Your task to perform on an android device: Open Google Image 0: 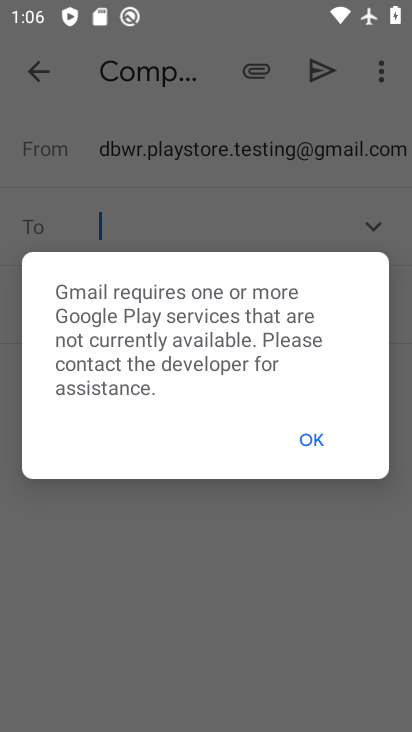
Step 0: press home button
Your task to perform on an android device: Open Google Image 1: 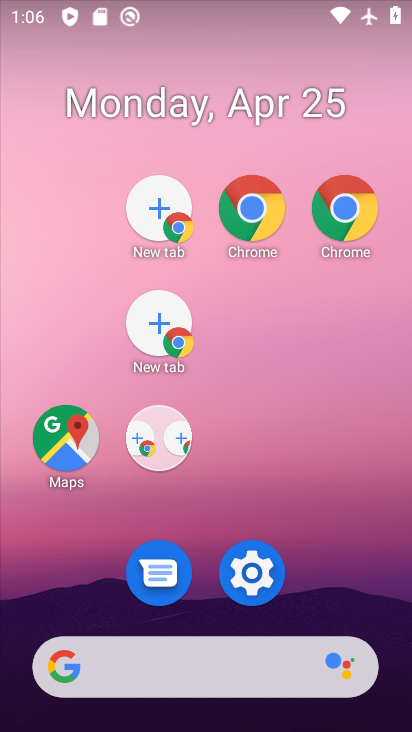
Step 1: drag from (269, 328) to (239, 145)
Your task to perform on an android device: Open Google Image 2: 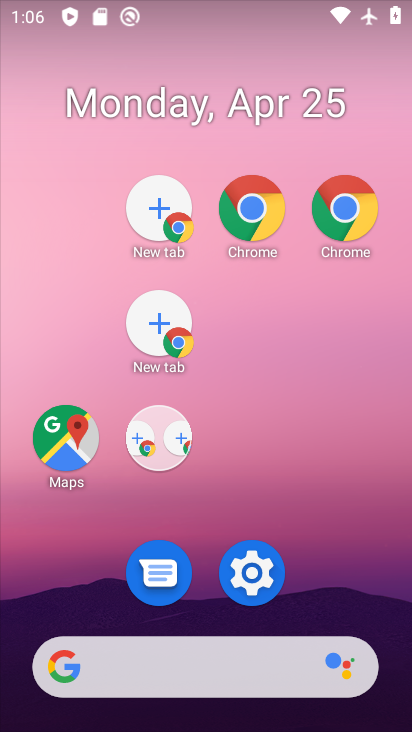
Step 2: drag from (275, 606) to (176, 49)
Your task to perform on an android device: Open Google Image 3: 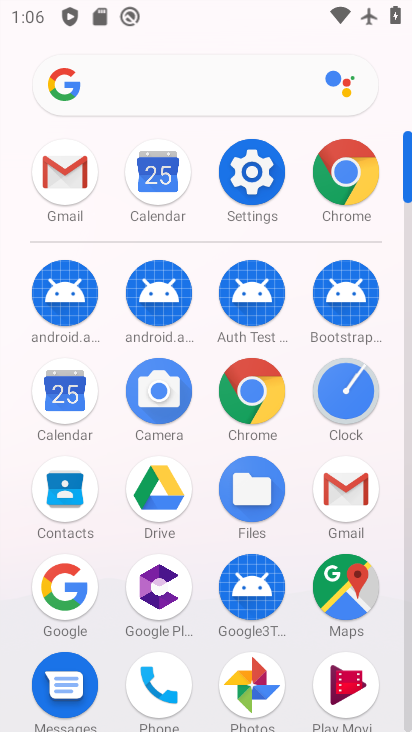
Step 3: click (71, 584)
Your task to perform on an android device: Open Google Image 4: 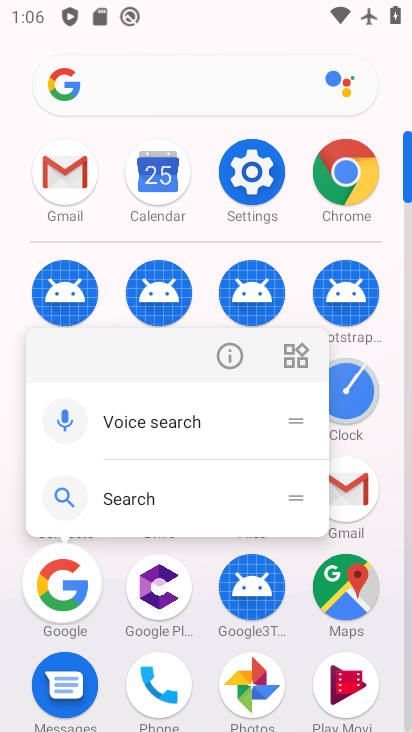
Step 4: click (68, 577)
Your task to perform on an android device: Open Google Image 5: 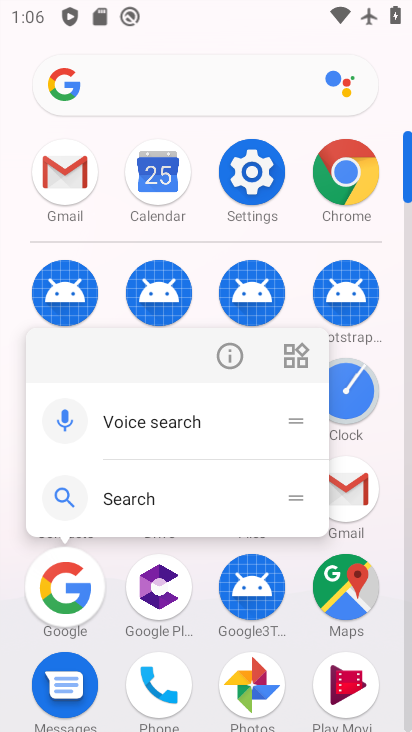
Step 5: click (68, 577)
Your task to perform on an android device: Open Google Image 6: 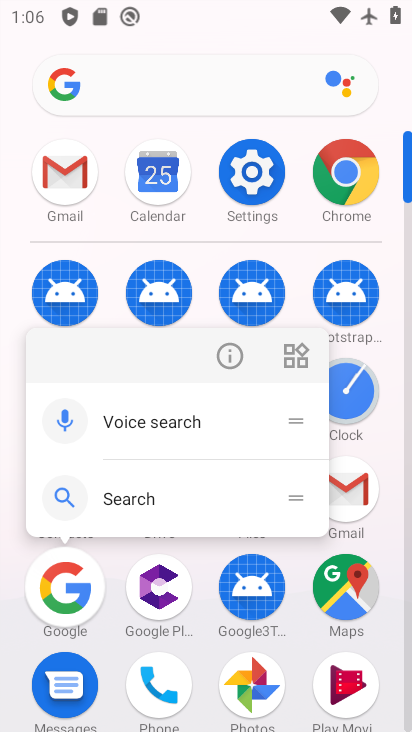
Step 6: click (67, 576)
Your task to perform on an android device: Open Google Image 7: 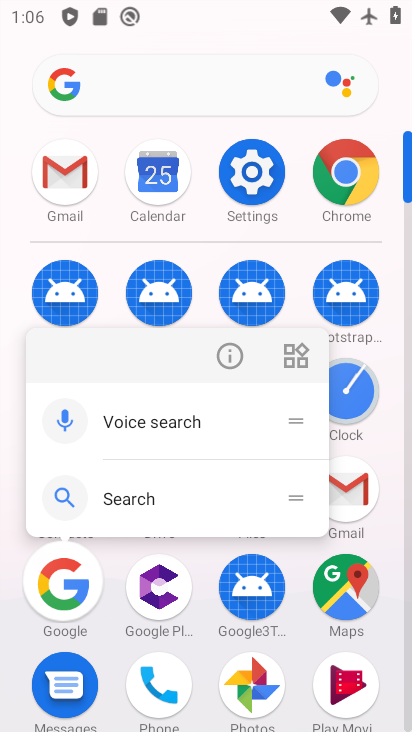
Step 7: click (65, 565)
Your task to perform on an android device: Open Google Image 8: 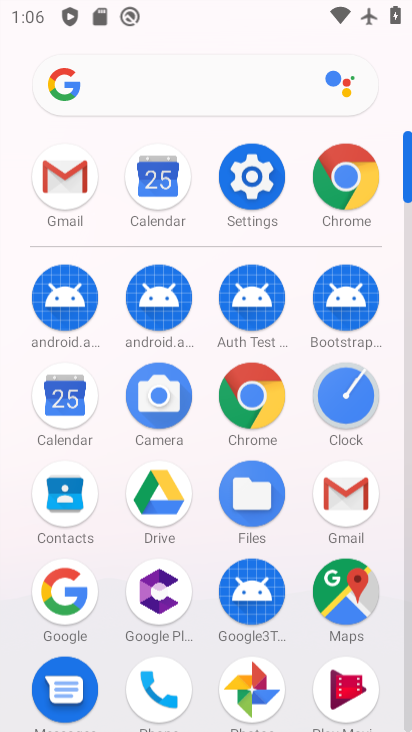
Step 8: click (51, 594)
Your task to perform on an android device: Open Google Image 9: 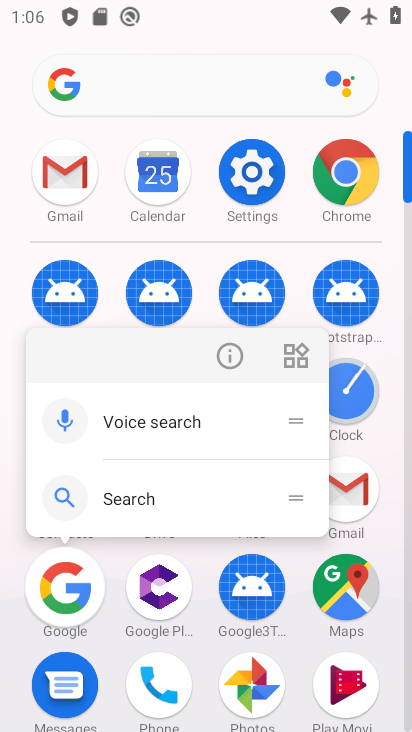
Step 9: click (57, 587)
Your task to perform on an android device: Open Google Image 10: 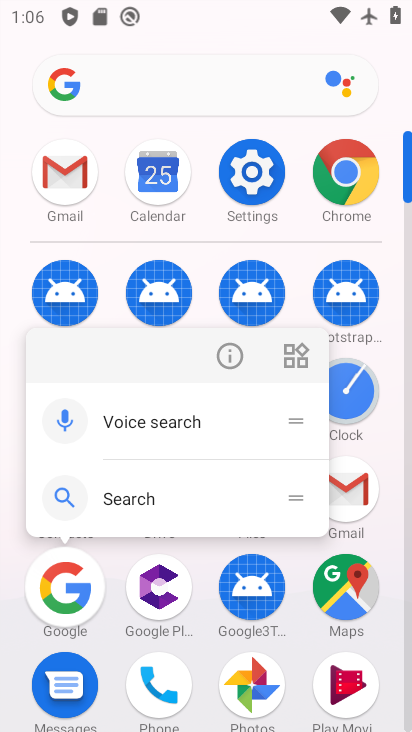
Step 10: click (61, 586)
Your task to perform on an android device: Open Google Image 11: 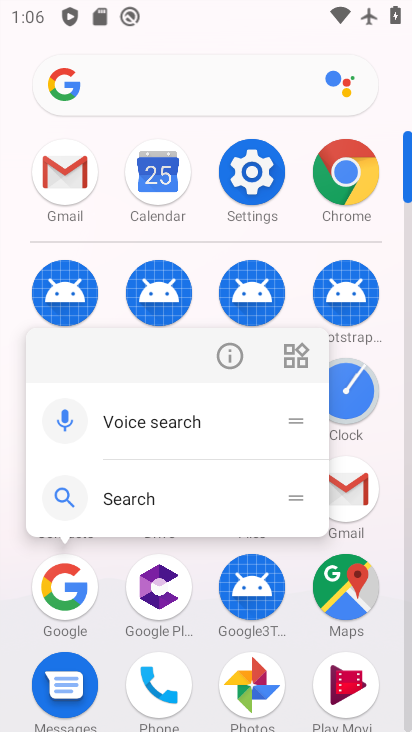
Step 11: click (70, 580)
Your task to perform on an android device: Open Google Image 12: 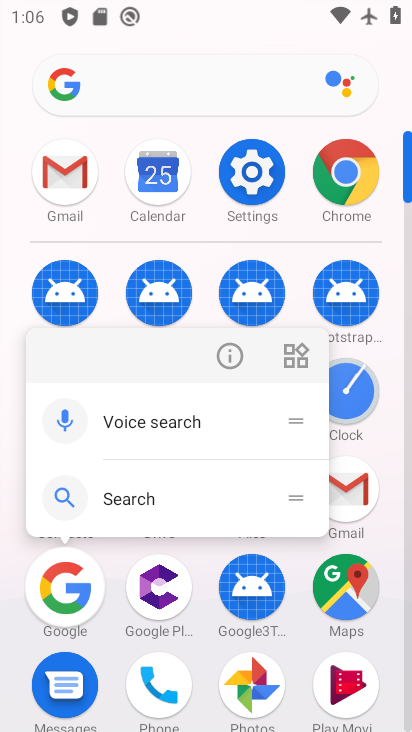
Step 12: click (72, 579)
Your task to perform on an android device: Open Google Image 13: 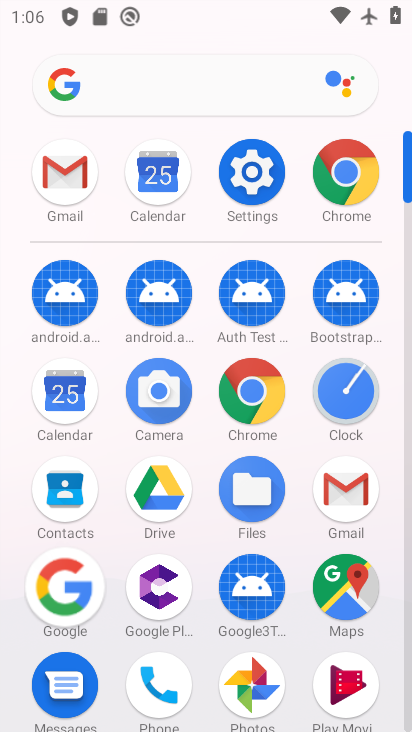
Step 13: click (74, 579)
Your task to perform on an android device: Open Google Image 14: 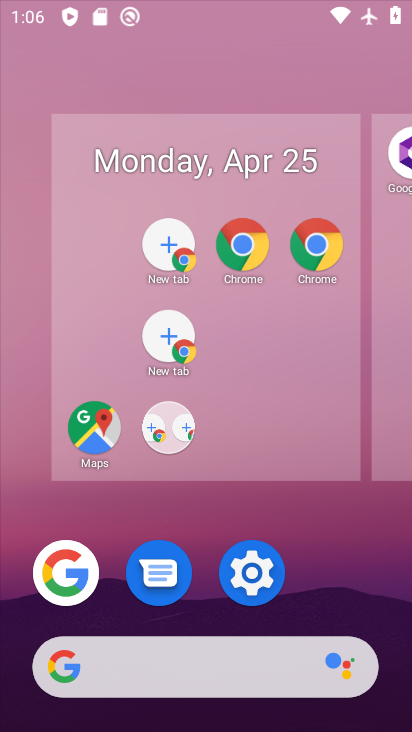
Step 14: click (121, 495)
Your task to perform on an android device: Open Google Image 15: 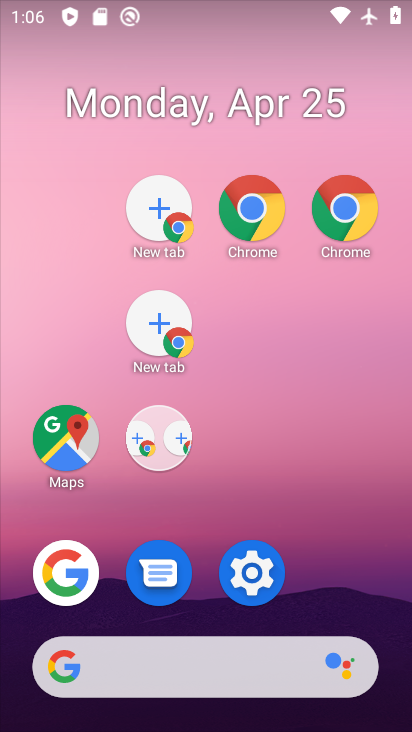
Step 15: click (51, 561)
Your task to perform on an android device: Open Google Image 16: 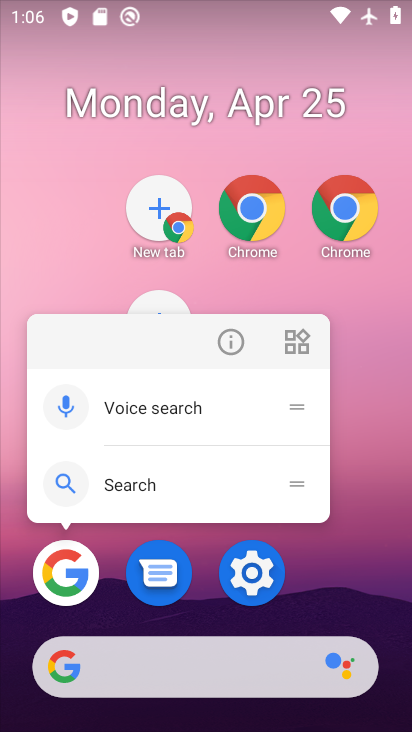
Step 16: click (106, 476)
Your task to perform on an android device: Open Google Image 17: 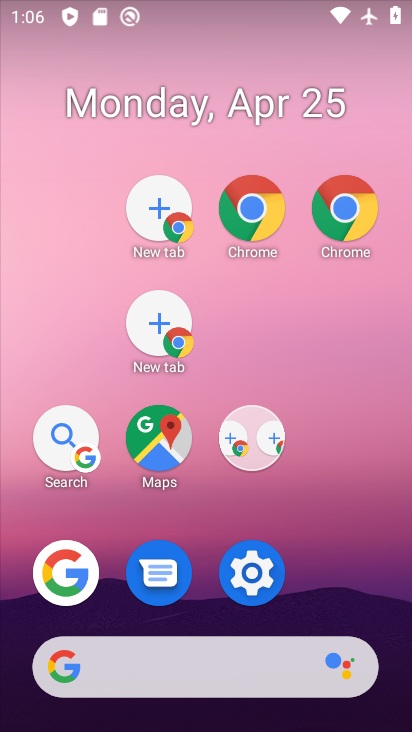
Step 17: drag from (350, 674) to (279, 277)
Your task to perform on an android device: Open Google Image 18: 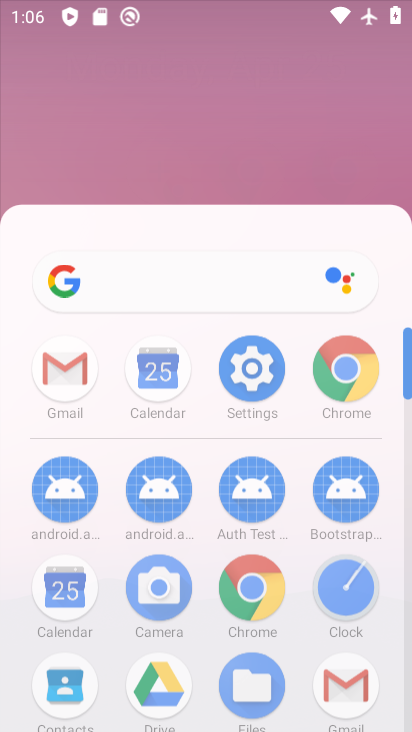
Step 18: drag from (337, 535) to (291, 287)
Your task to perform on an android device: Open Google Image 19: 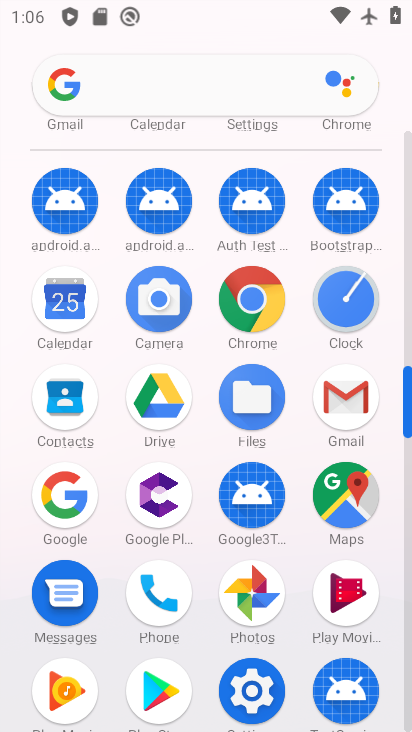
Step 19: click (64, 502)
Your task to perform on an android device: Open Google Image 20: 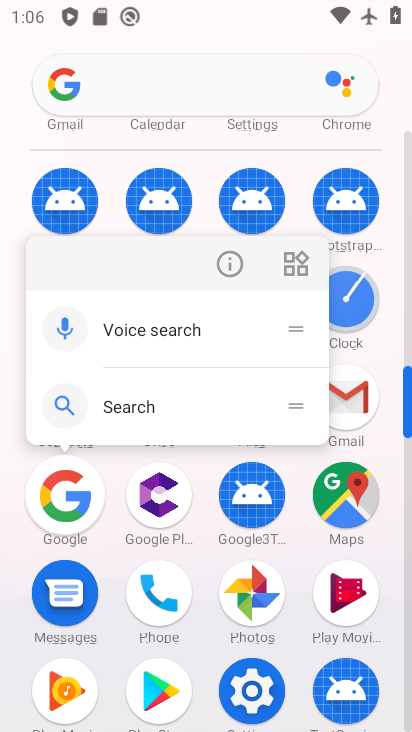
Step 20: click (64, 502)
Your task to perform on an android device: Open Google Image 21: 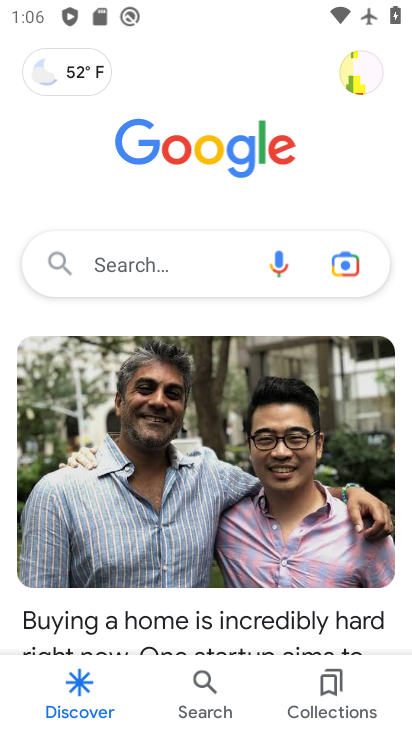
Step 21: task complete